Your task to perform on an android device: snooze an email in the gmail app Image 0: 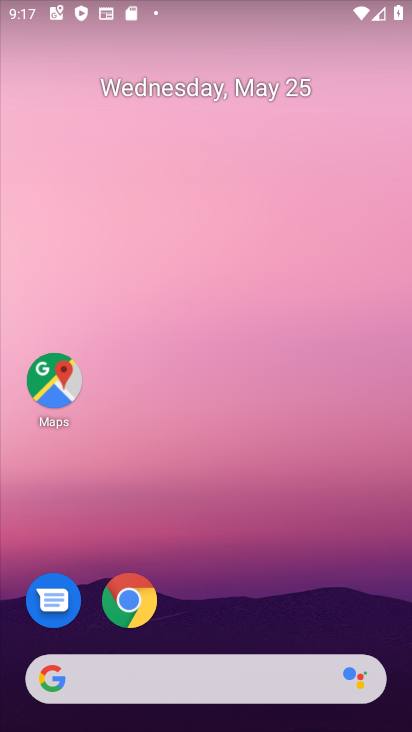
Step 0: drag from (286, 603) to (89, 0)
Your task to perform on an android device: snooze an email in the gmail app Image 1: 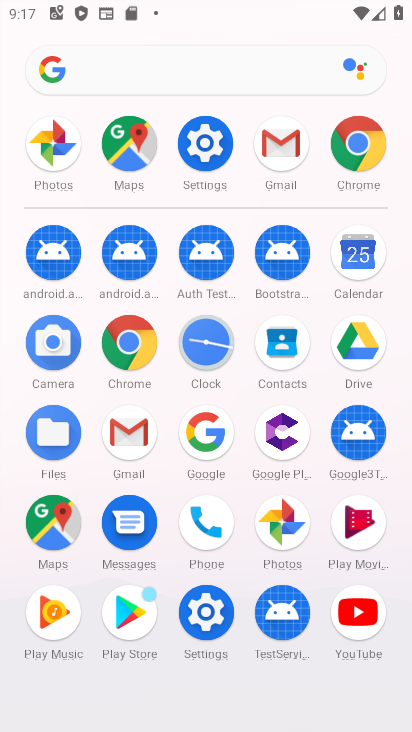
Step 1: drag from (3, 565) to (11, 304)
Your task to perform on an android device: snooze an email in the gmail app Image 2: 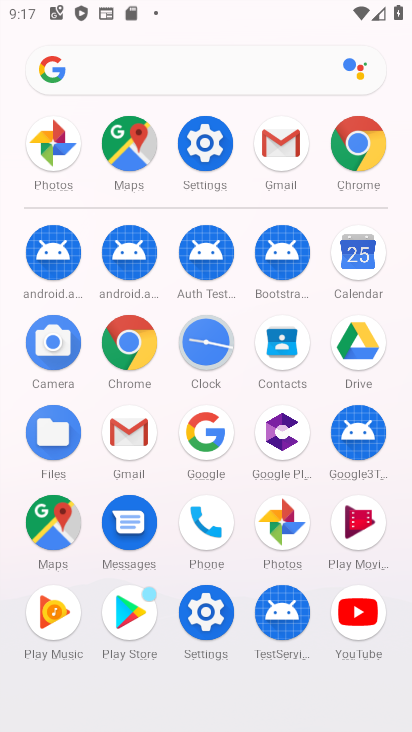
Step 2: click (122, 426)
Your task to perform on an android device: snooze an email in the gmail app Image 3: 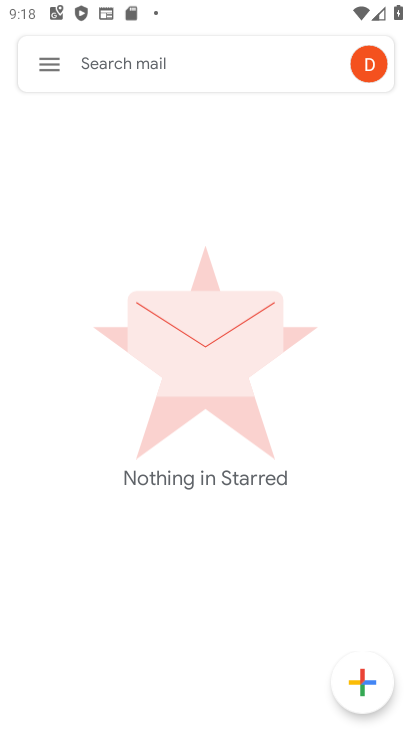
Step 3: click (47, 64)
Your task to perform on an android device: snooze an email in the gmail app Image 4: 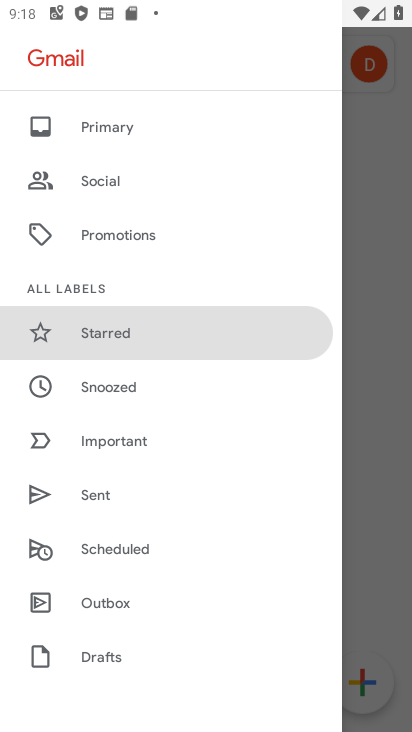
Step 4: click (137, 128)
Your task to perform on an android device: snooze an email in the gmail app Image 5: 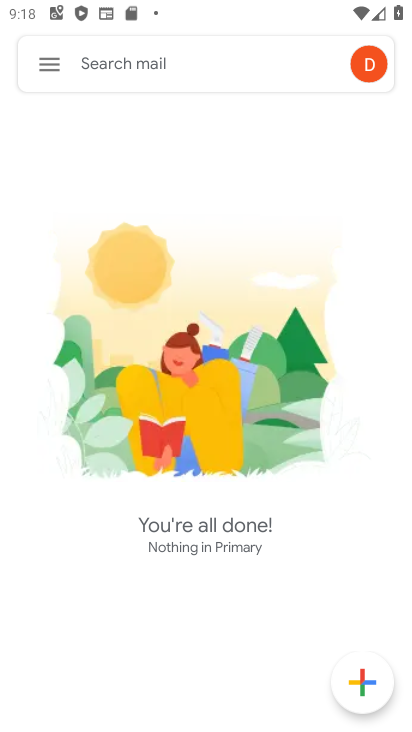
Step 5: click (50, 63)
Your task to perform on an android device: snooze an email in the gmail app Image 6: 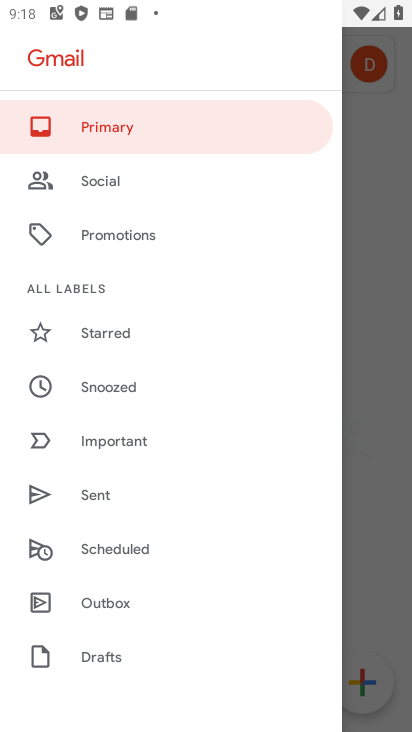
Step 6: click (121, 383)
Your task to perform on an android device: snooze an email in the gmail app Image 7: 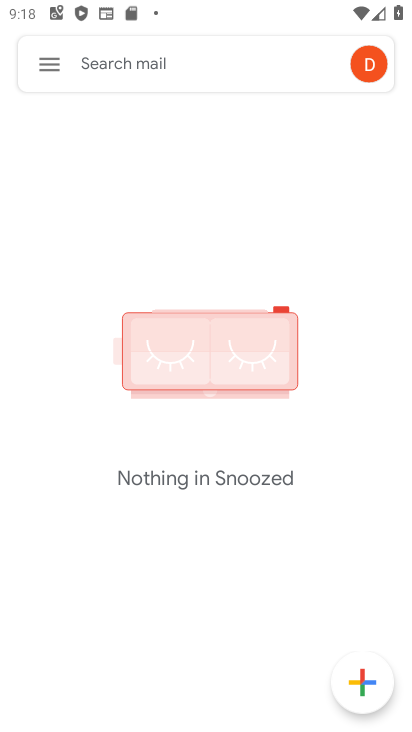
Step 7: task complete